Your task to perform on an android device: open app "Fetch Rewards" (install if not already installed) and go to login screen Image 0: 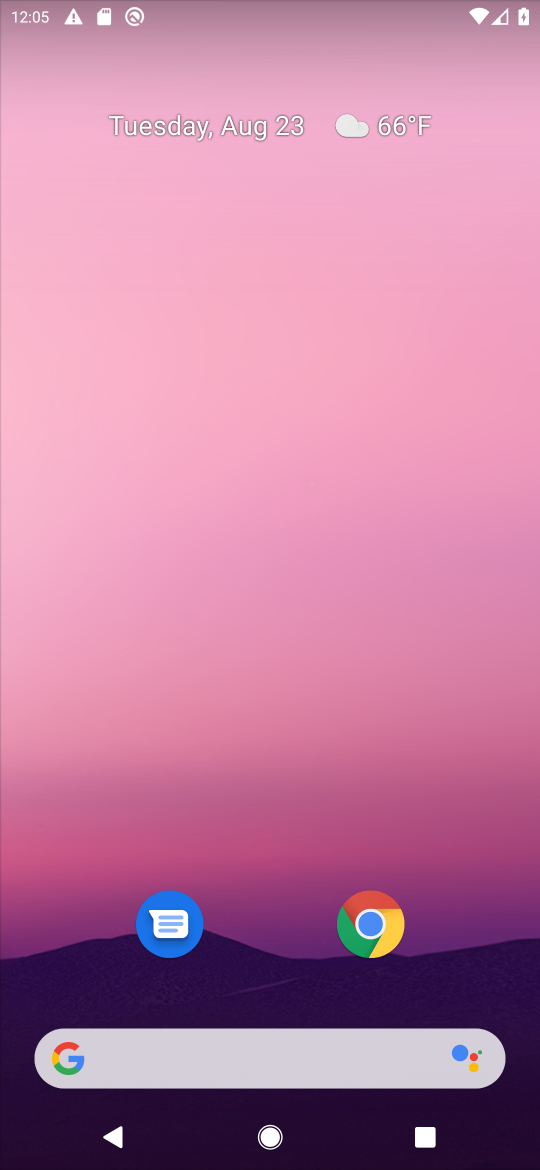
Step 0: press home button
Your task to perform on an android device: open app "Fetch Rewards" (install if not already installed) and go to login screen Image 1: 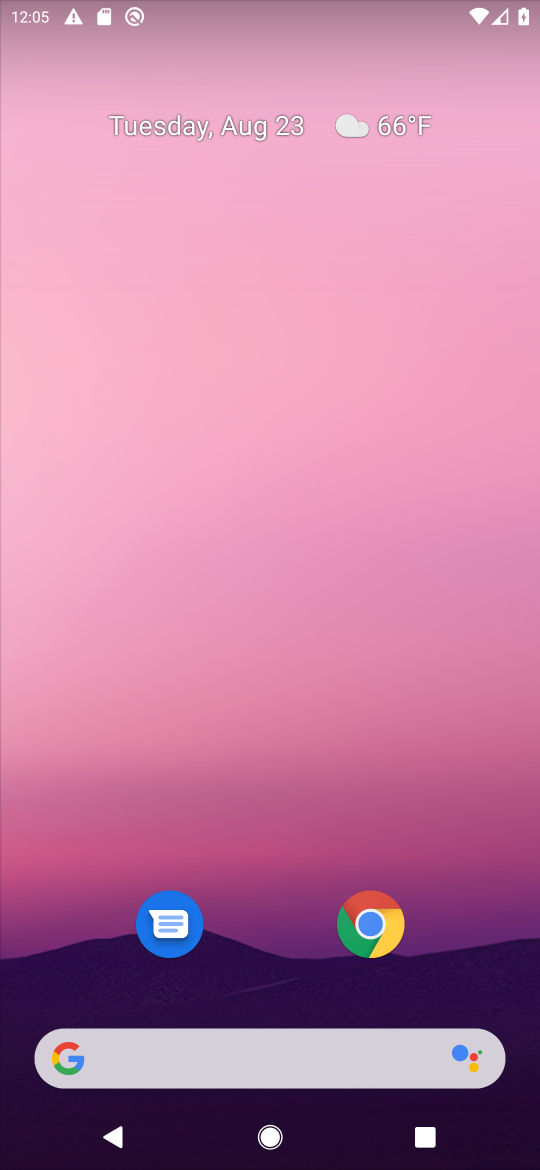
Step 1: drag from (481, 978) to (491, 136)
Your task to perform on an android device: open app "Fetch Rewards" (install if not already installed) and go to login screen Image 2: 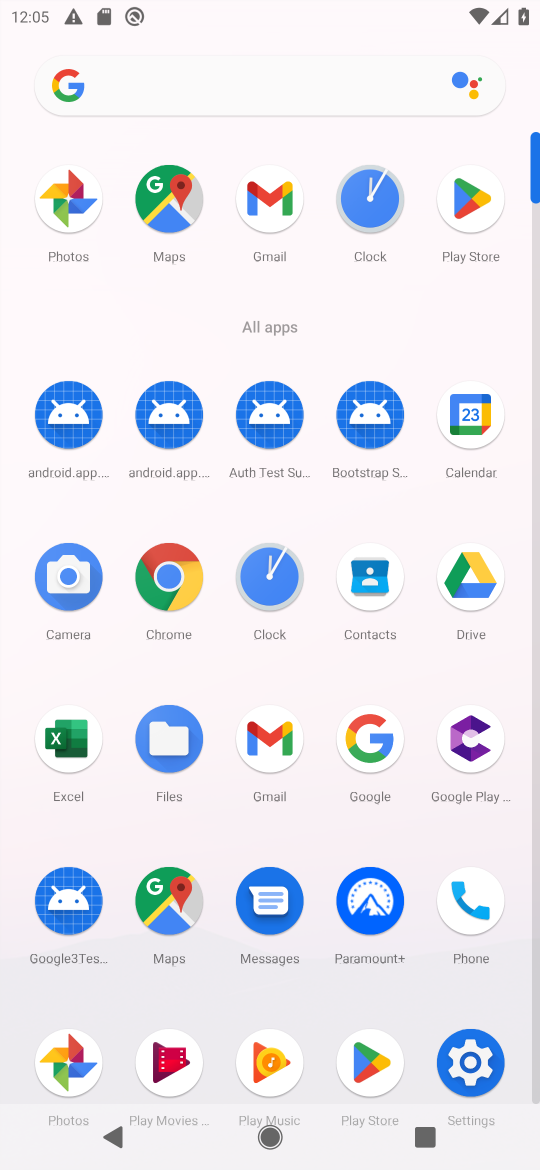
Step 2: click (477, 189)
Your task to perform on an android device: open app "Fetch Rewards" (install if not already installed) and go to login screen Image 3: 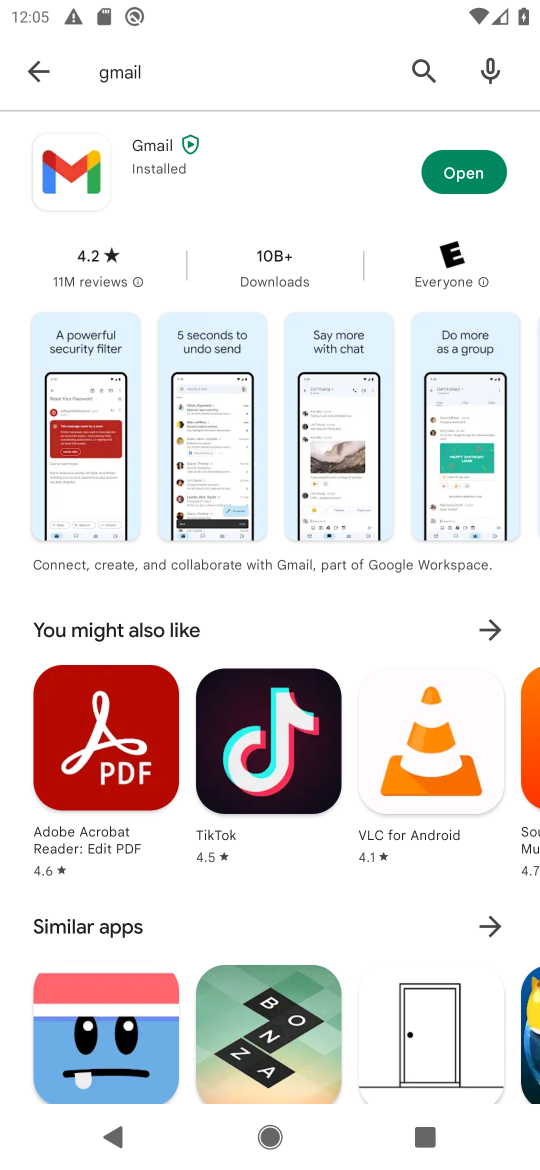
Step 3: press back button
Your task to perform on an android device: open app "Fetch Rewards" (install if not already installed) and go to login screen Image 4: 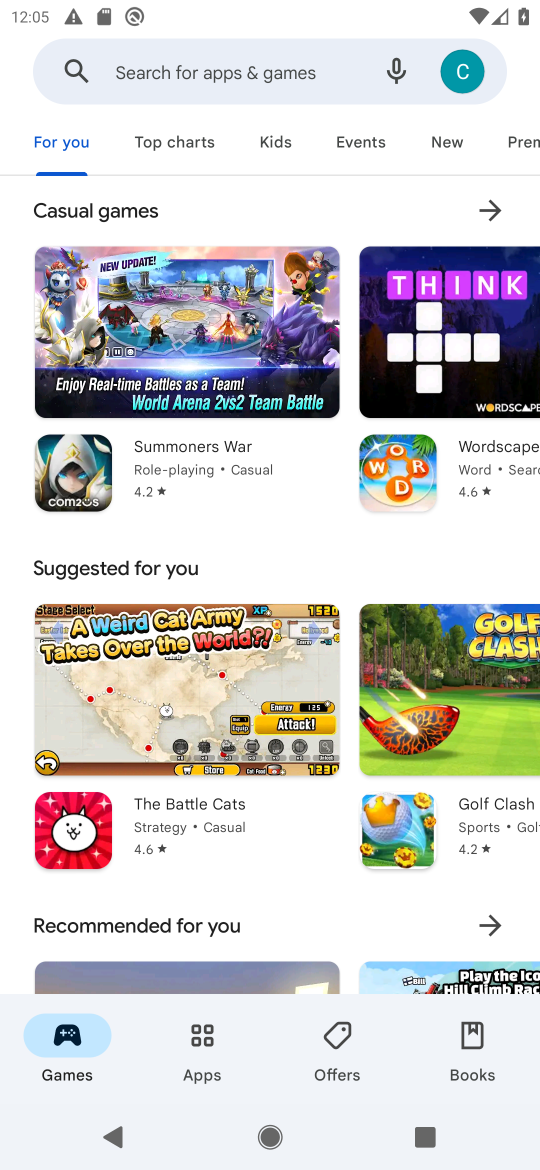
Step 4: click (199, 75)
Your task to perform on an android device: open app "Fetch Rewards" (install if not already installed) and go to login screen Image 5: 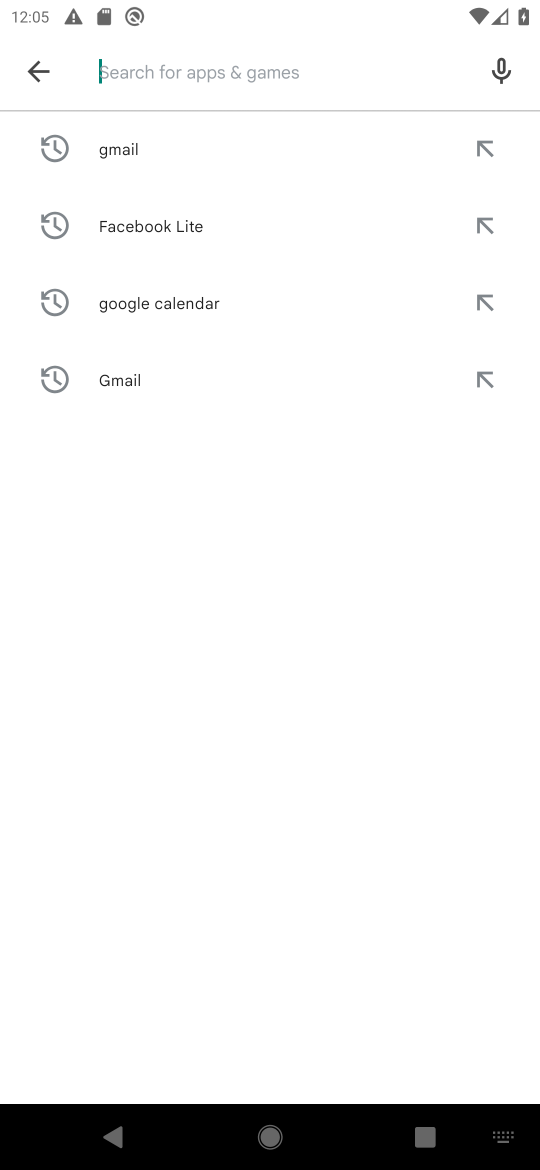
Step 5: type "Fetch Rewards"
Your task to perform on an android device: open app "Fetch Rewards" (install if not already installed) and go to login screen Image 6: 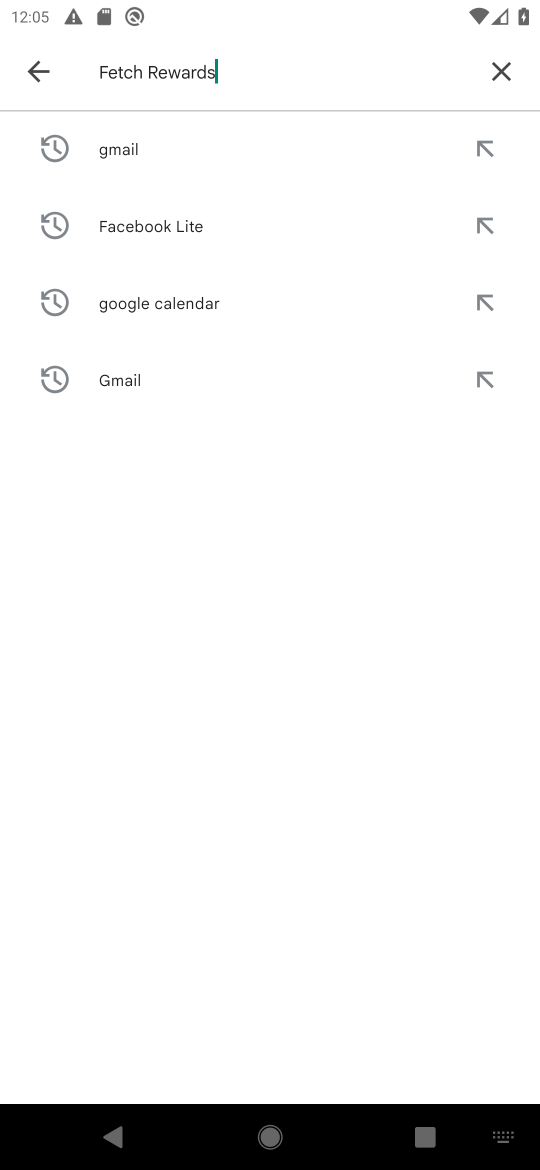
Step 6: press enter
Your task to perform on an android device: open app "Fetch Rewards" (install if not already installed) and go to login screen Image 7: 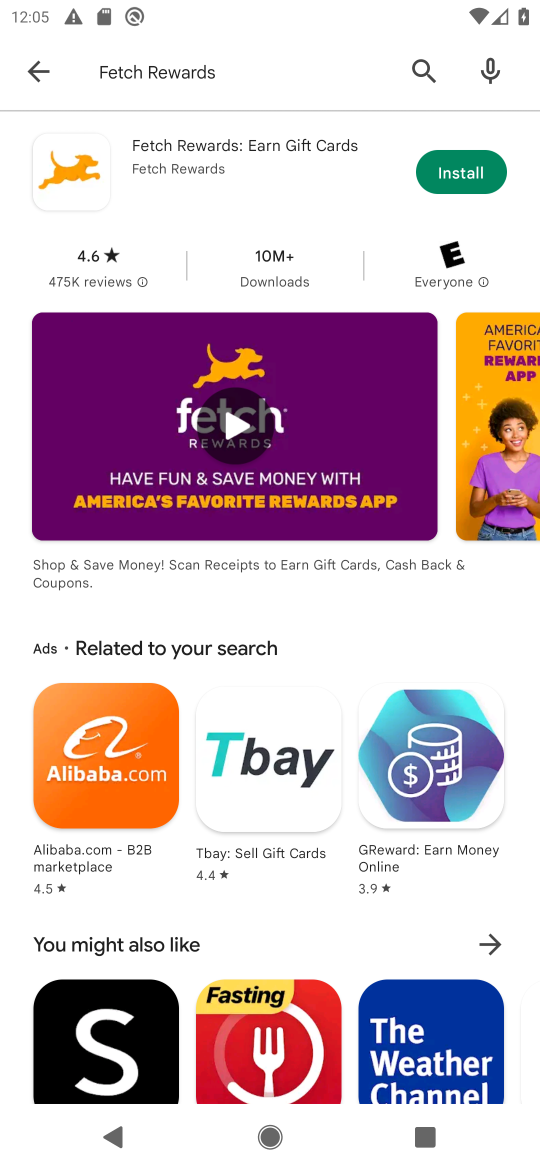
Step 7: click (475, 174)
Your task to perform on an android device: open app "Fetch Rewards" (install if not already installed) and go to login screen Image 8: 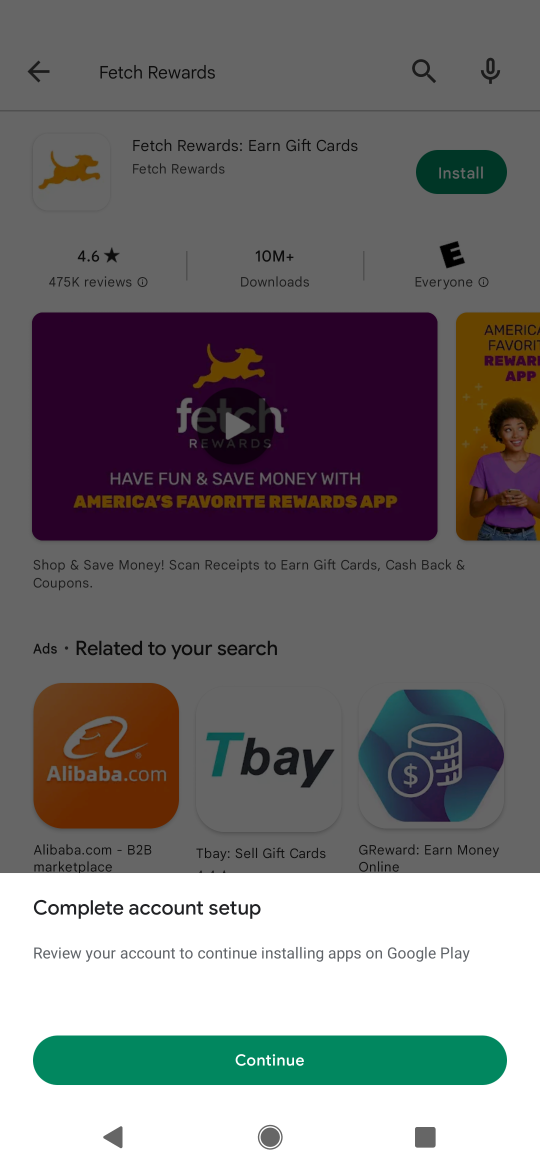
Step 8: click (360, 1069)
Your task to perform on an android device: open app "Fetch Rewards" (install if not already installed) and go to login screen Image 9: 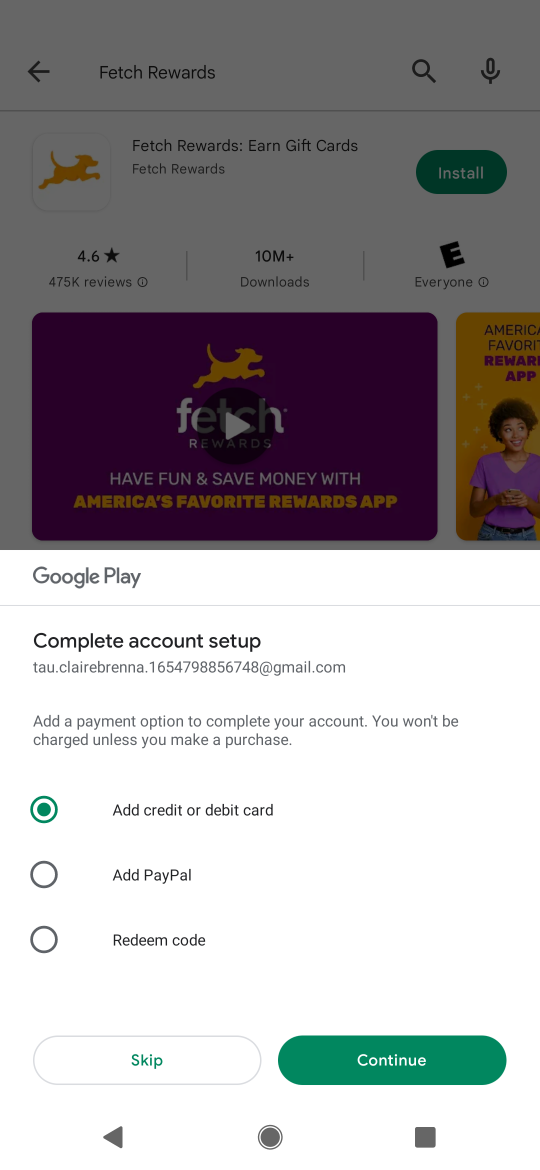
Step 9: click (143, 1068)
Your task to perform on an android device: open app "Fetch Rewards" (install if not already installed) and go to login screen Image 10: 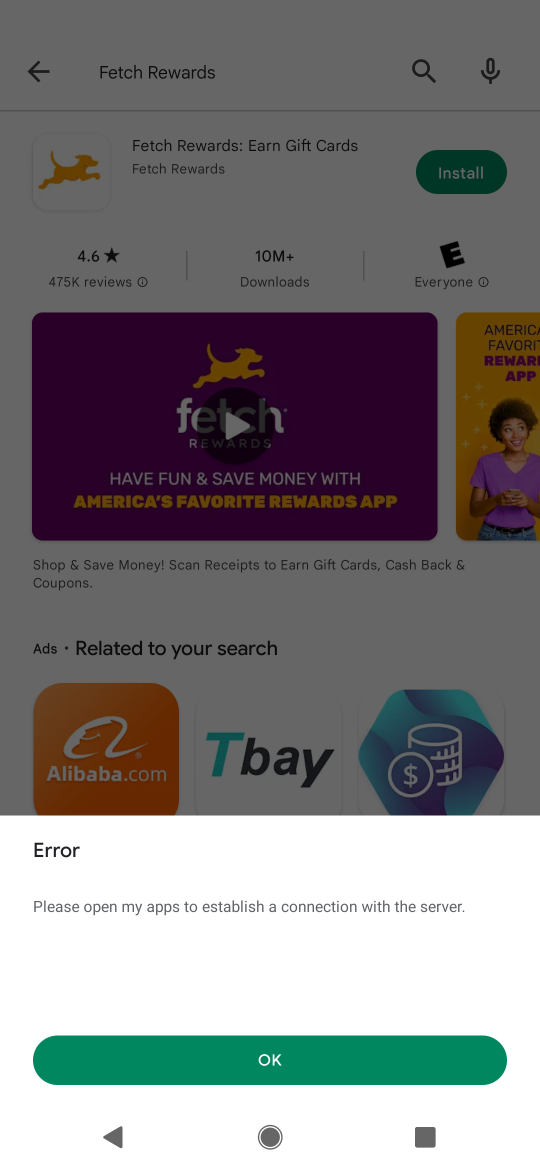
Step 10: task complete